Your task to perform on an android device: turn on notifications settings in the gmail app Image 0: 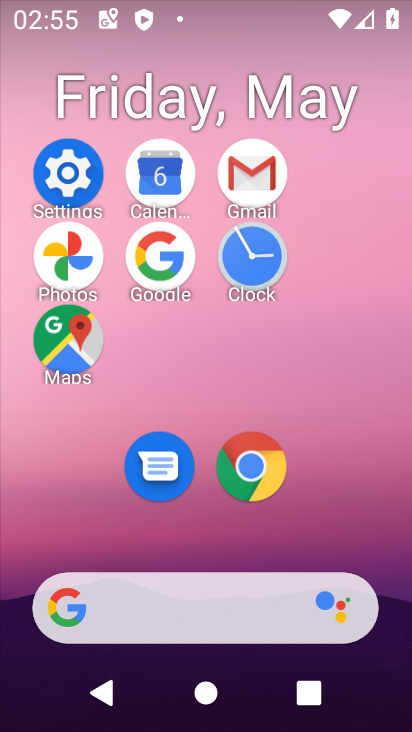
Step 0: click (244, 182)
Your task to perform on an android device: turn on notifications settings in the gmail app Image 1: 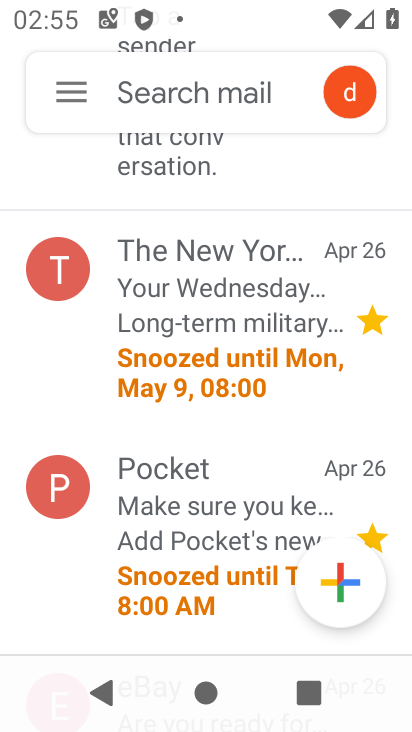
Step 1: click (65, 98)
Your task to perform on an android device: turn on notifications settings in the gmail app Image 2: 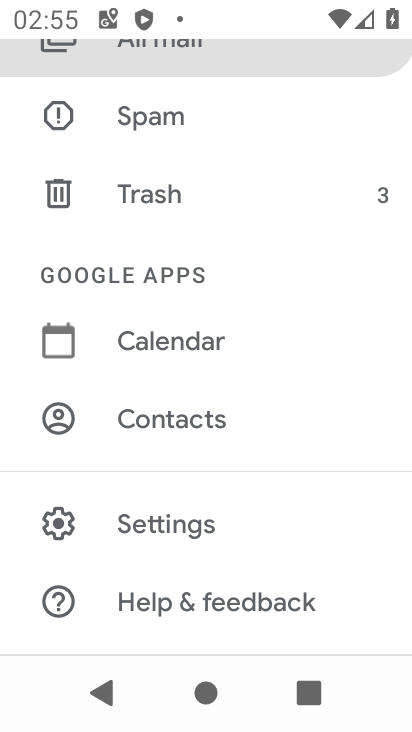
Step 2: click (255, 519)
Your task to perform on an android device: turn on notifications settings in the gmail app Image 3: 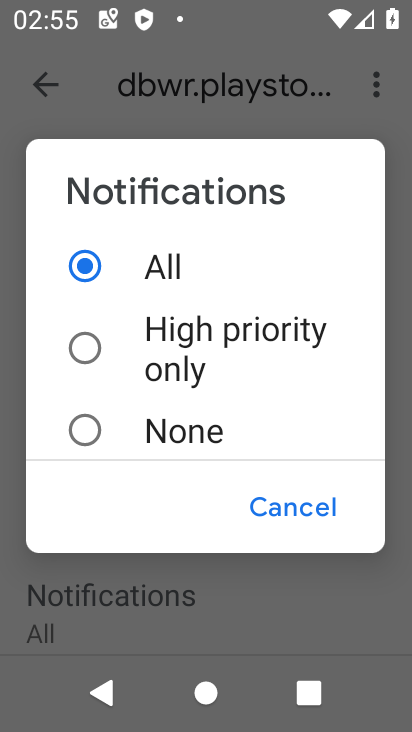
Step 3: task complete